Your task to perform on an android device: toggle notification dots Image 0: 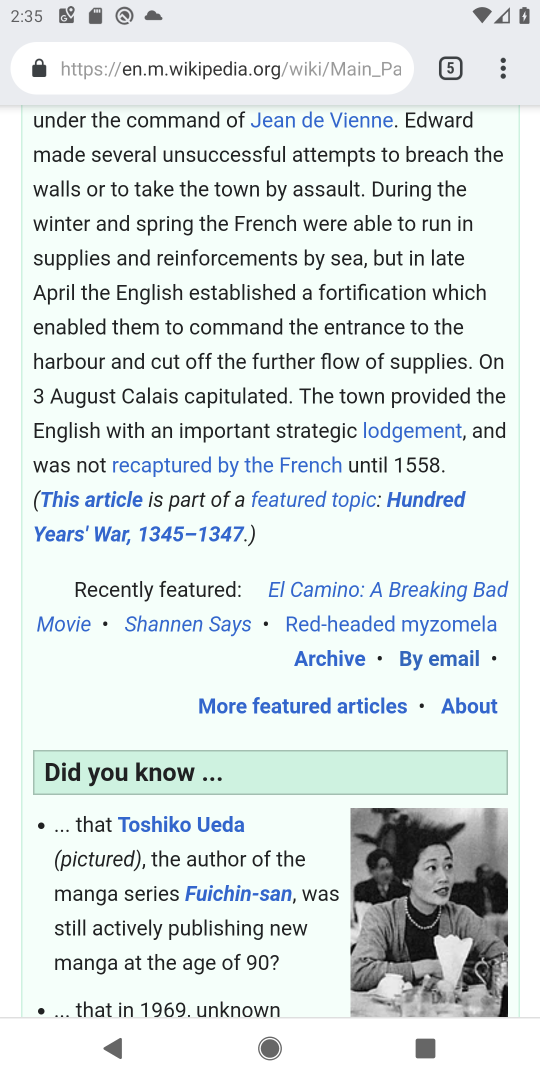
Step 0: press home button
Your task to perform on an android device: toggle notification dots Image 1: 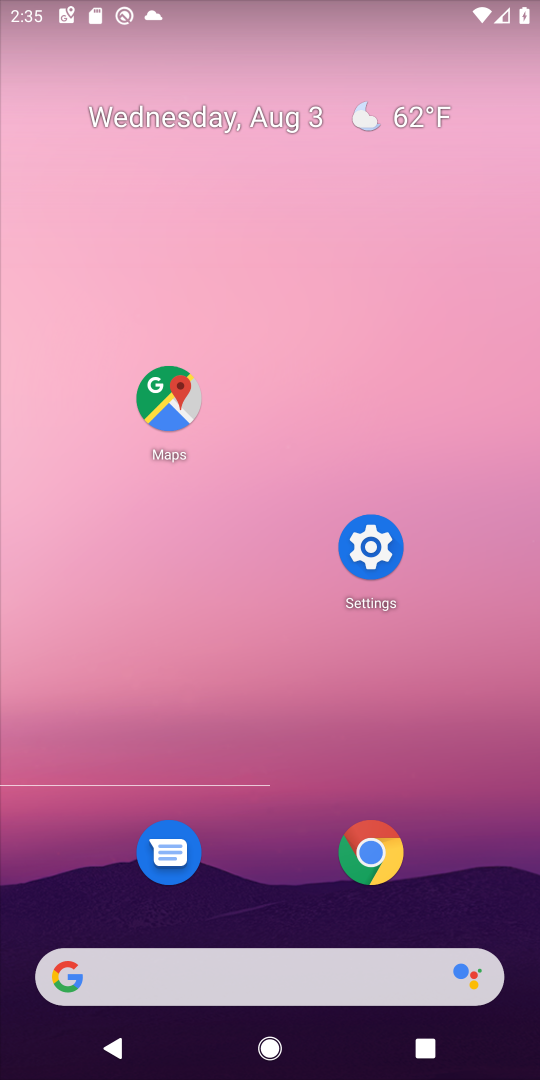
Step 1: click (372, 555)
Your task to perform on an android device: toggle notification dots Image 2: 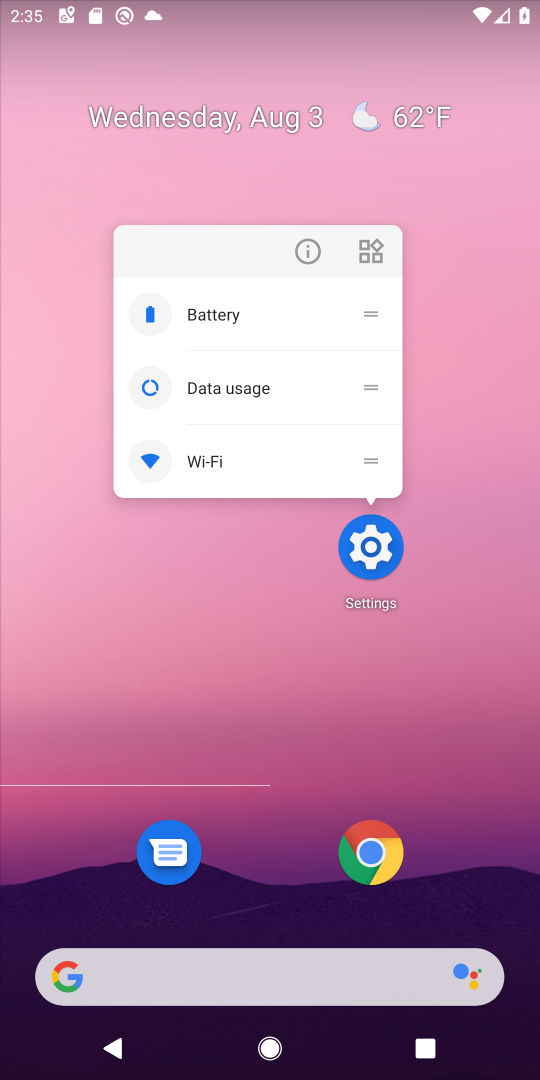
Step 2: click (373, 540)
Your task to perform on an android device: toggle notification dots Image 3: 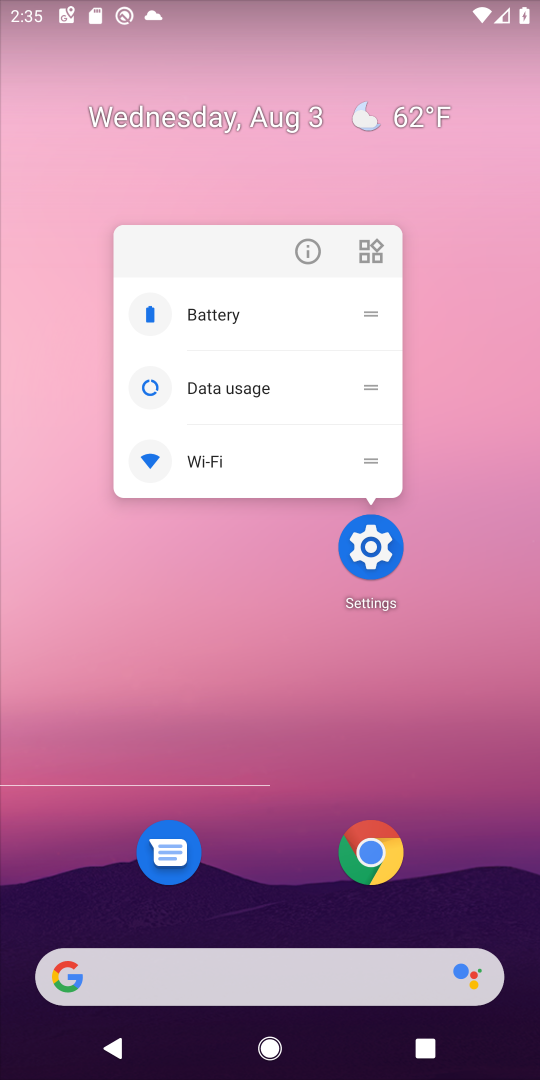
Step 3: click (373, 544)
Your task to perform on an android device: toggle notification dots Image 4: 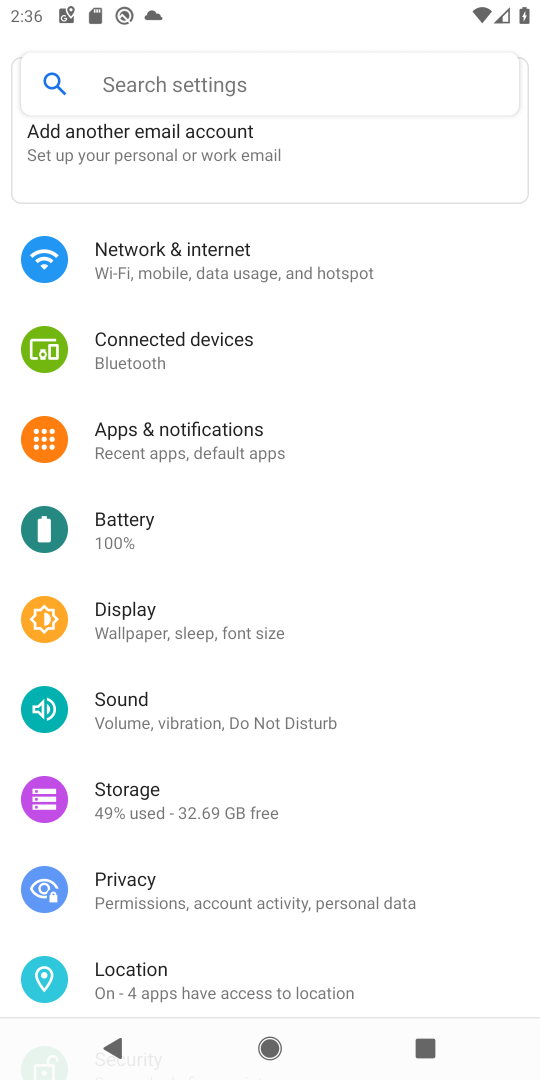
Step 4: click (199, 440)
Your task to perform on an android device: toggle notification dots Image 5: 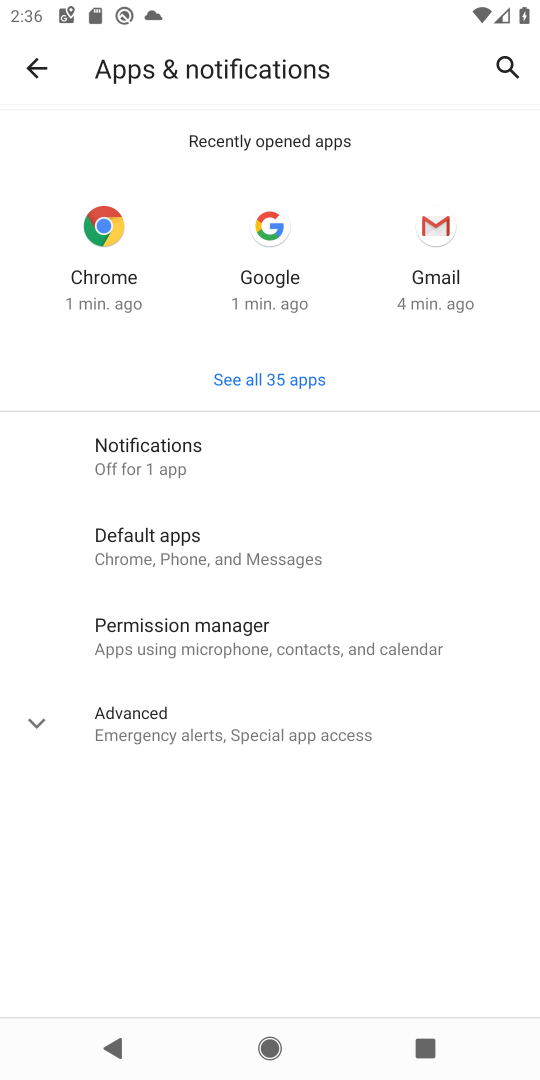
Step 5: click (176, 453)
Your task to perform on an android device: toggle notification dots Image 6: 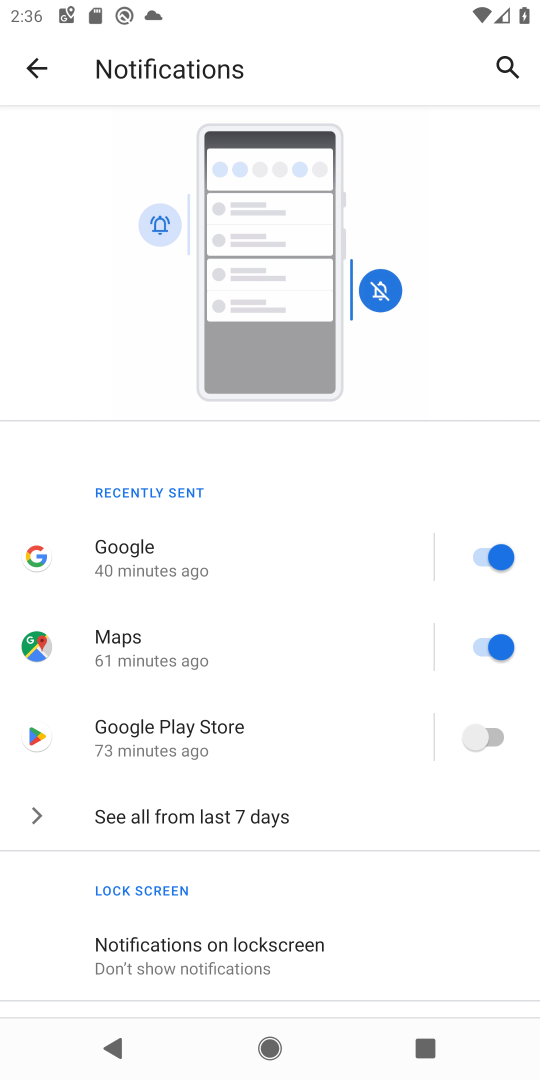
Step 6: drag from (279, 665) to (382, 348)
Your task to perform on an android device: toggle notification dots Image 7: 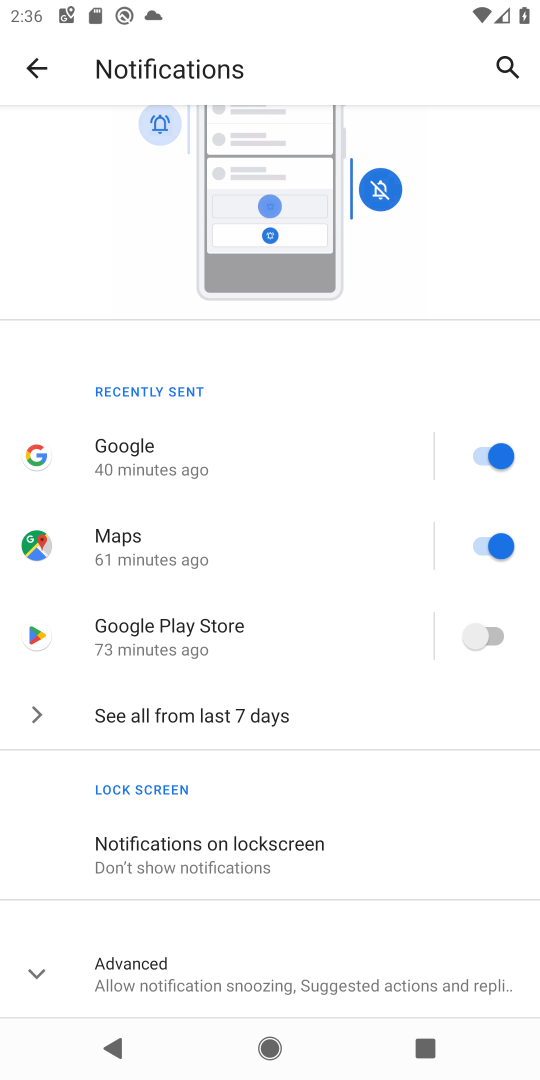
Step 7: click (196, 953)
Your task to perform on an android device: toggle notification dots Image 8: 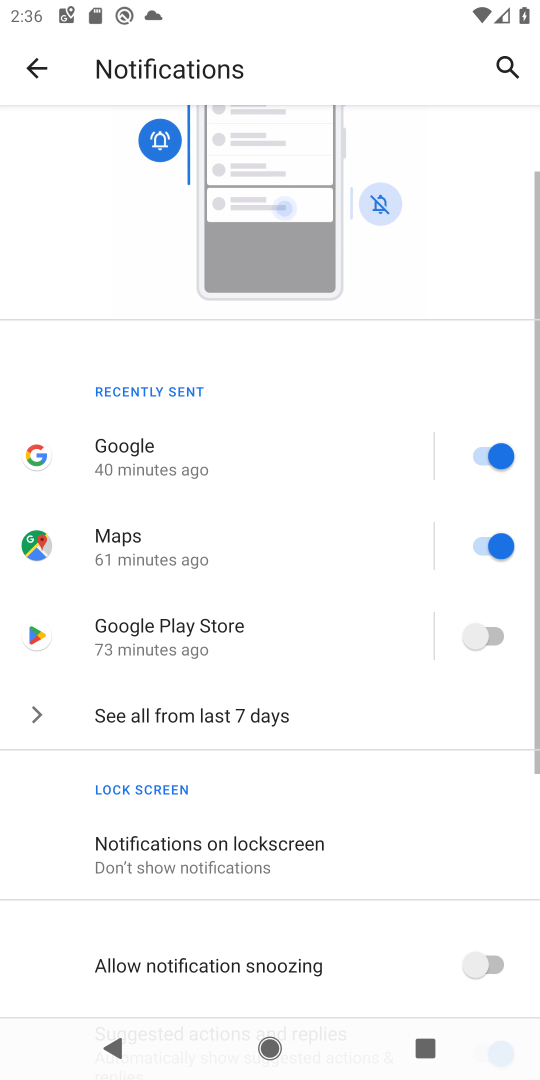
Step 8: drag from (312, 932) to (516, 99)
Your task to perform on an android device: toggle notification dots Image 9: 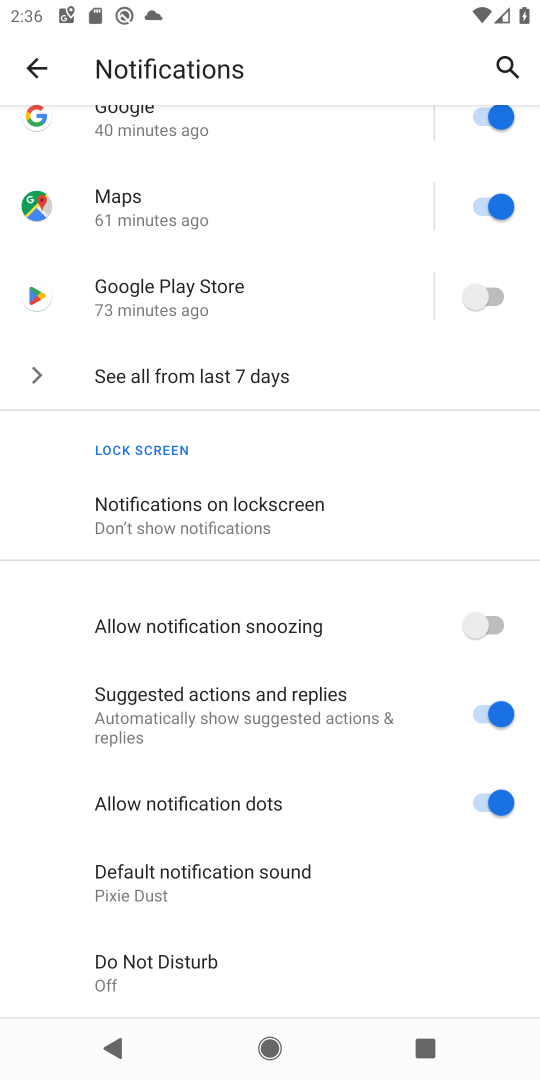
Step 9: click (485, 796)
Your task to perform on an android device: toggle notification dots Image 10: 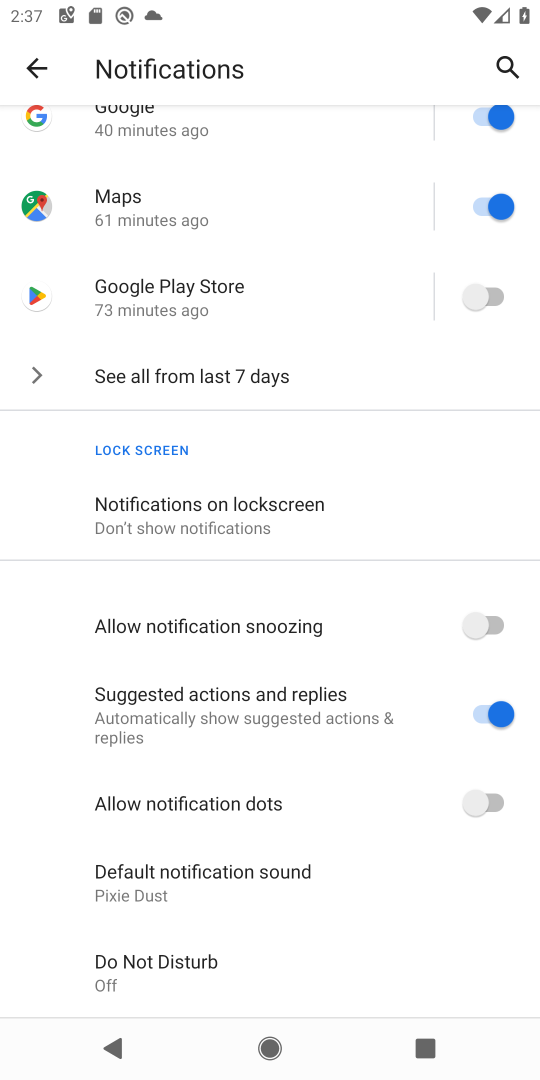
Step 10: task complete